Your task to perform on an android device: toggle wifi Image 0: 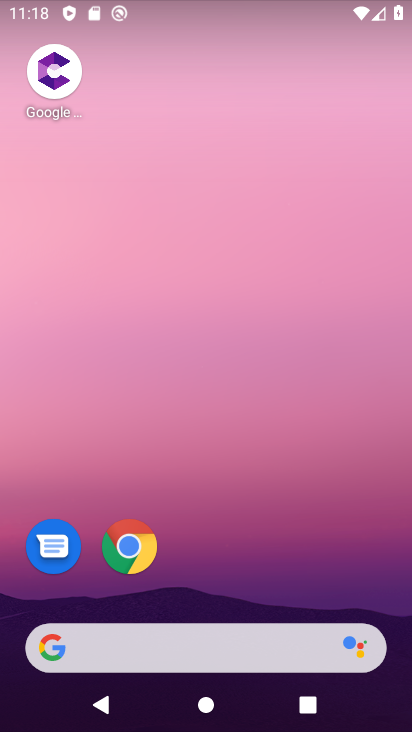
Step 0: drag from (257, 481) to (247, 174)
Your task to perform on an android device: toggle wifi Image 1: 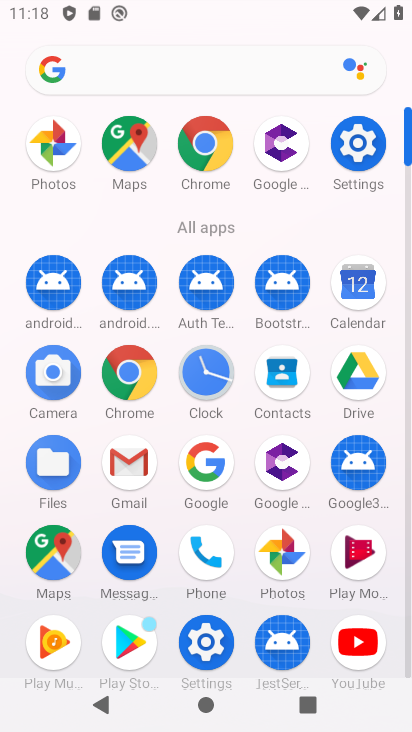
Step 1: click (358, 150)
Your task to perform on an android device: toggle wifi Image 2: 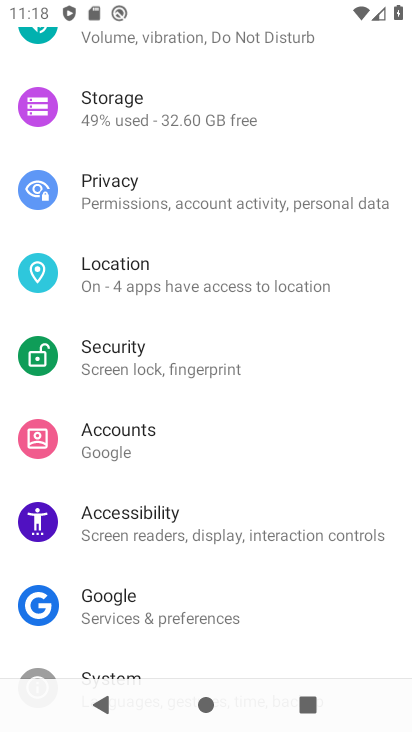
Step 2: drag from (295, 149) to (200, 507)
Your task to perform on an android device: toggle wifi Image 3: 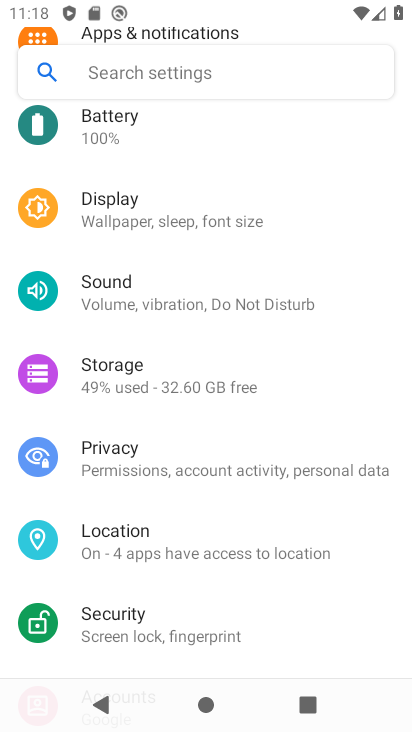
Step 3: drag from (207, 163) to (176, 513)
Your task to perform on an android device: toggle wifi Image 4: 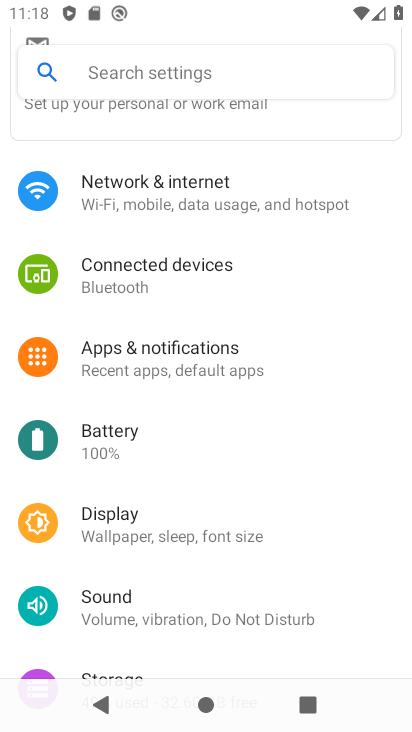
Step 4: click (196, 212)
Your task to perform on an android device: toggle wifi Image 5: 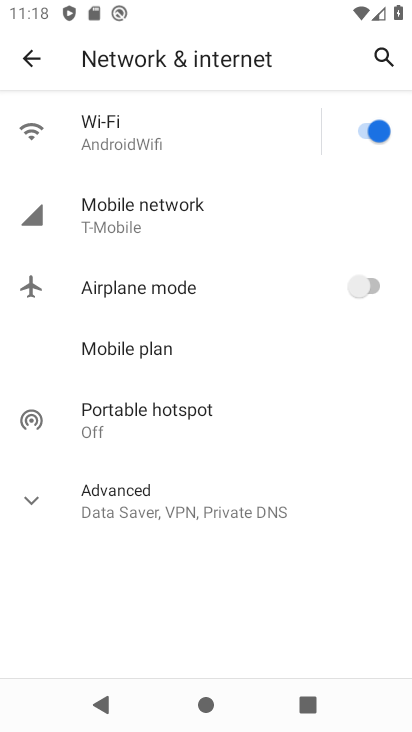
Step 5: click (359, 126)
Your task to perform on an android device: toggle wifi Image 6: 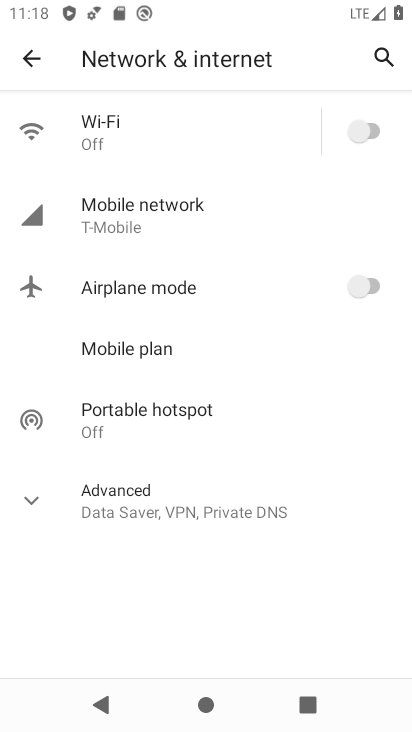
Step 6: task complete